Your task to perform on an android device: Search for Mexican restaurants on Maps Image 0: 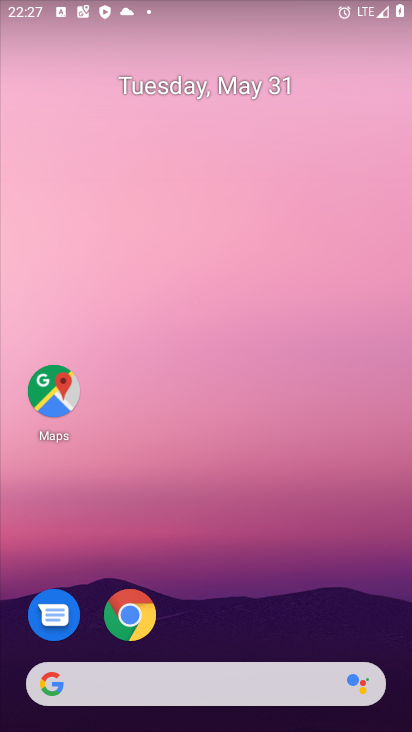
Step 0: click (55, 392)
Your task to perform on an android device: Search for Mexican restaurants on Maps Image 1: 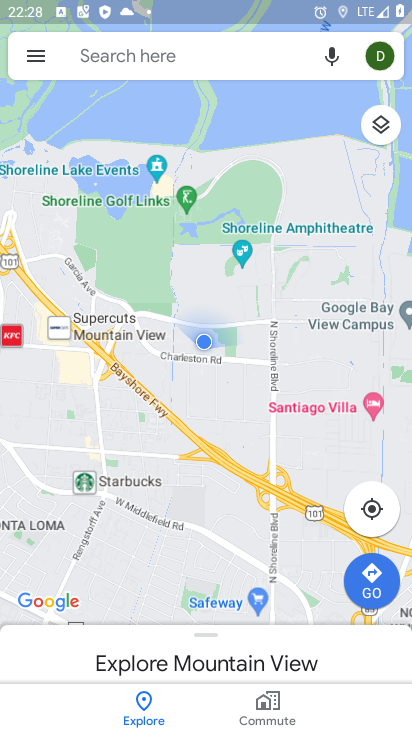
Step 1: click (170, 56)
Your task to perform on an android device: Search for Mexican restaurants on Maps Image 2: 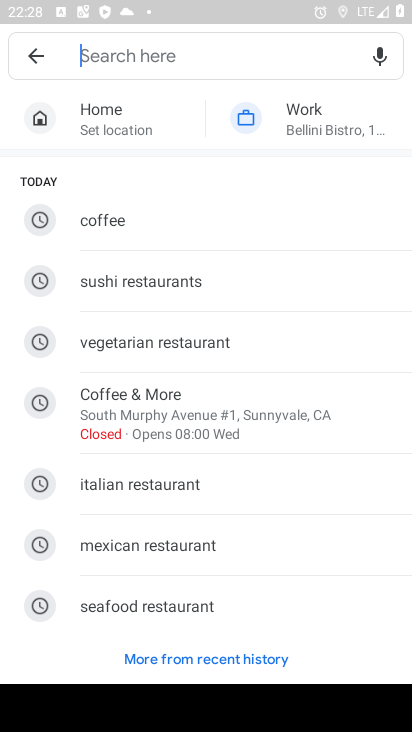
Step 2: type "mexican restaurants"
Your task to perform on an android device: Search for Mexican restaurants on Maps Image 3: 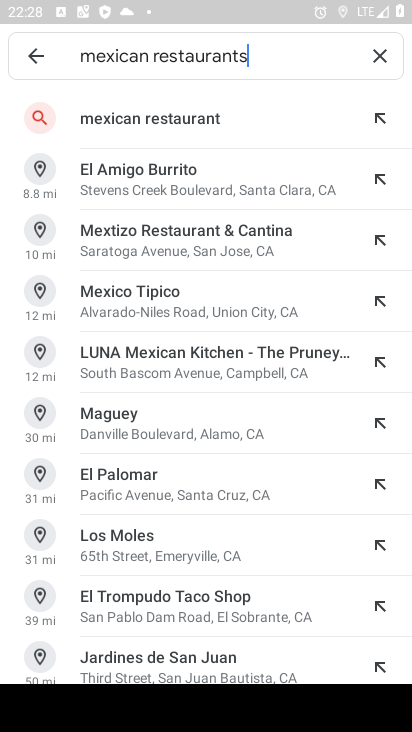
Step 3: click (144, 120)
Your task to perform on an android device: Search for Mexican restaurants on Maps Image 4: 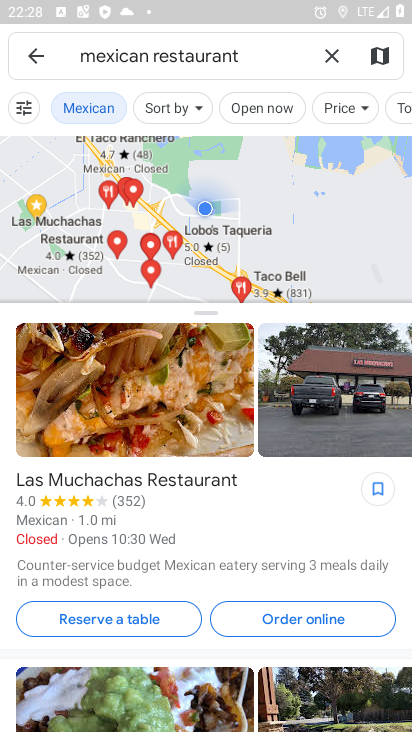
Step 4: task complete